Your task to perform on an android device: Go to Reddit.com Image 0: 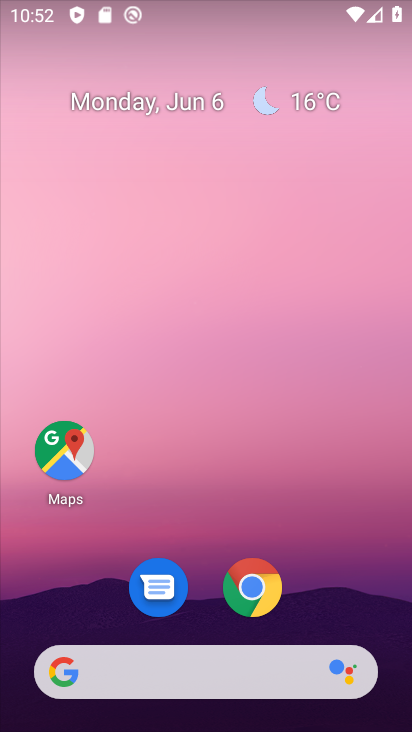
Step 0: drag from (318, 544) to (222, 40)
Your task to perform on an android device: Go to Reddit.com Image 1: 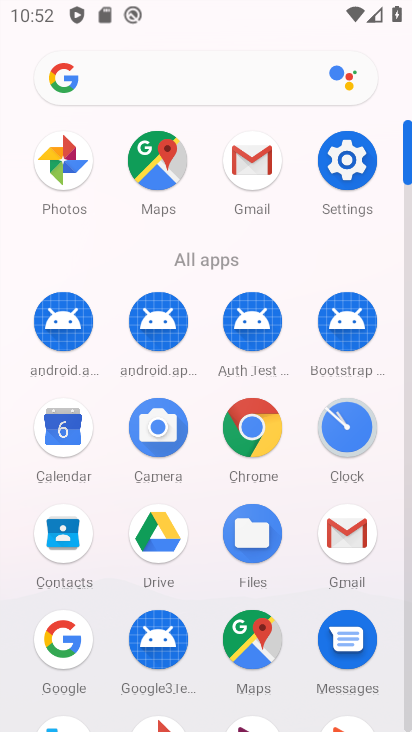
Step 1: drag from (18, 582) to (2, 225)
Your task to perform on an android device: Go to Reddit.com Image 2: 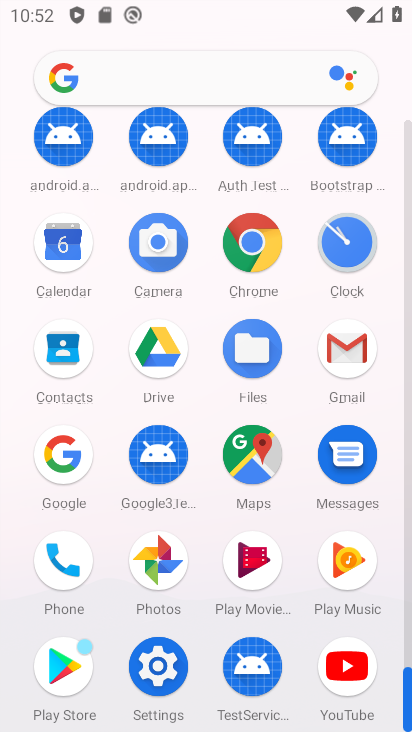
Step 2: click (251, 239)
Your task to perform on an android device: Go to Reddit.com Image 3: 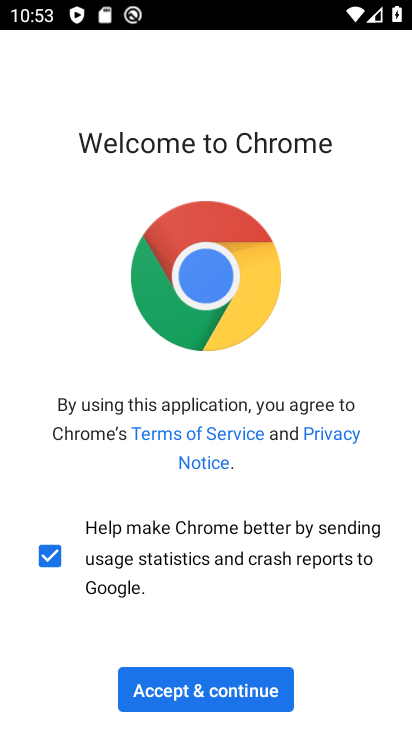
Step 3: click (225, 671)
Your task to perform on an android device: Go to Reddit.com Image 4: 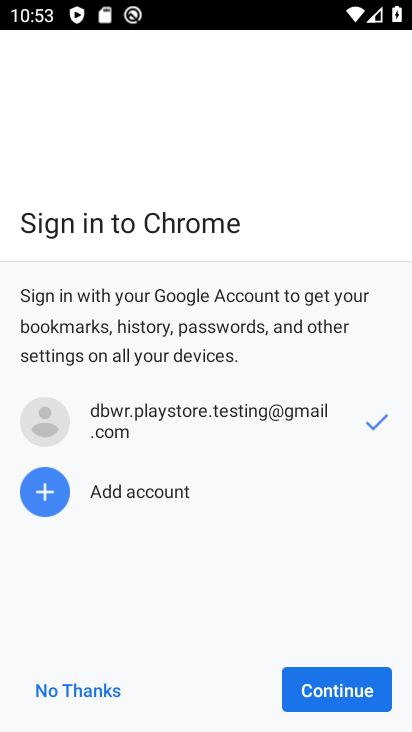
Step 4: click (339, 702)
Your task to perform on an android device: Go to Reddit.com Image 5: 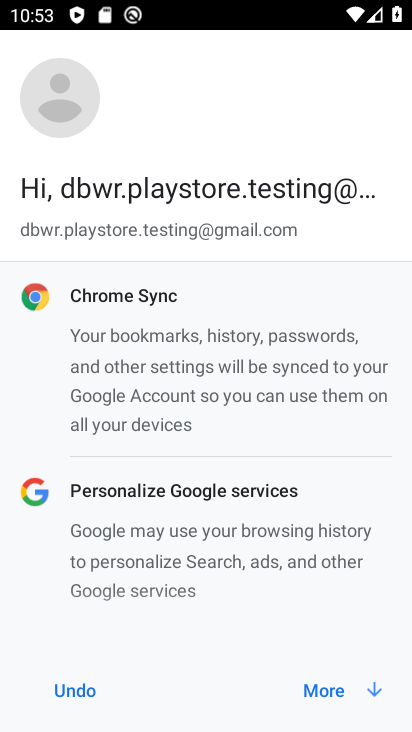
Step 5: click (329, 688)
Your task to perform on an android device: Go to Reddit.com Image 6: 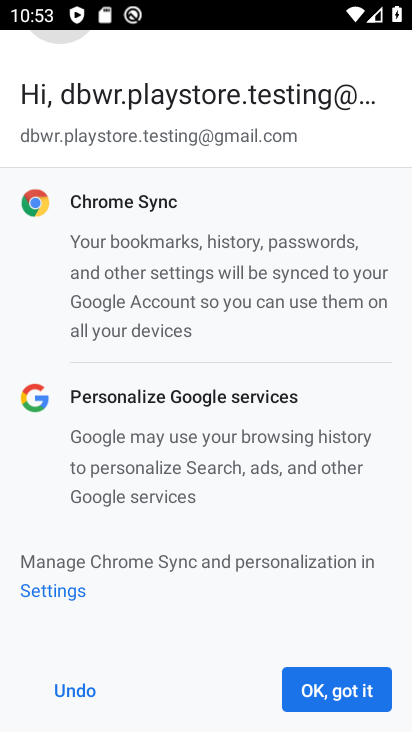
Step 6: click (329, 688)
Your task to perform on an android device: Go to Reddit.com Image 7: 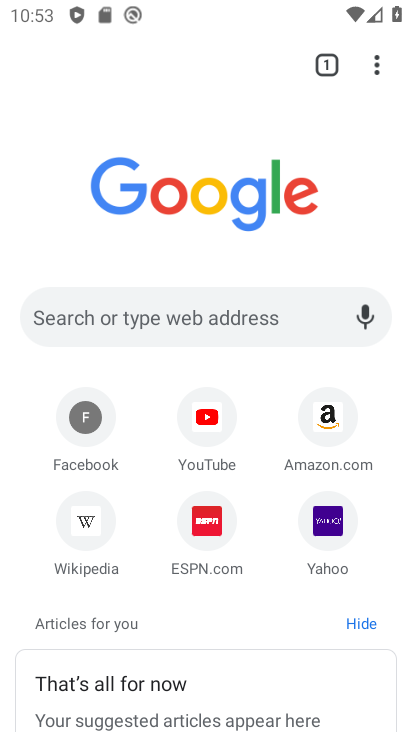
Step 7: click (141, 304)
Your task to perform on an android device: Go to Reddit.com Image 8: 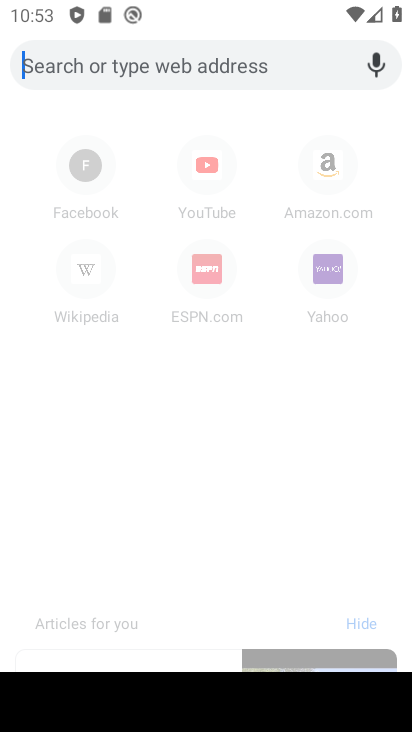
Step 8: type "Reddit.com"
Your task to perform on an android device: Go to Reddit.com Image 9: 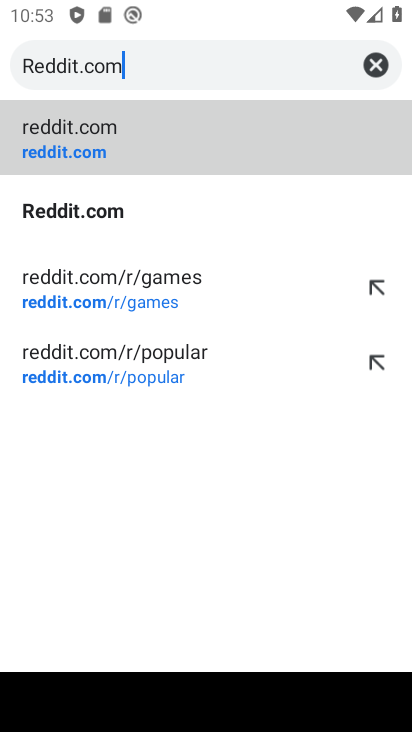
Step 9: type ""
Your task to perform on an android device: Go to Reddit.com Image 10: 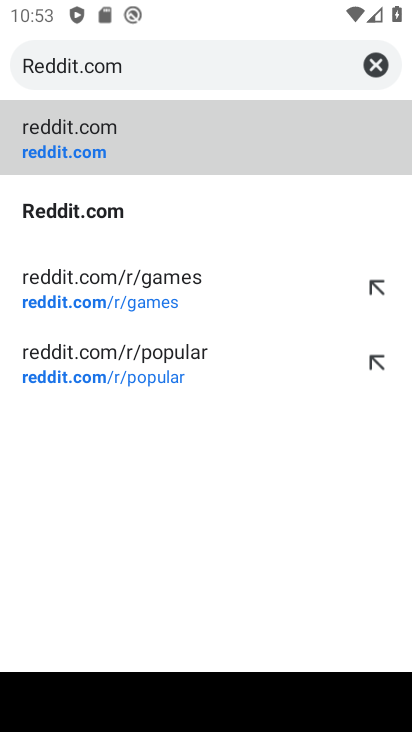
Step 10: click (93, 132)
Your task to perform on an android device: Go to Reddit.com Image 11: 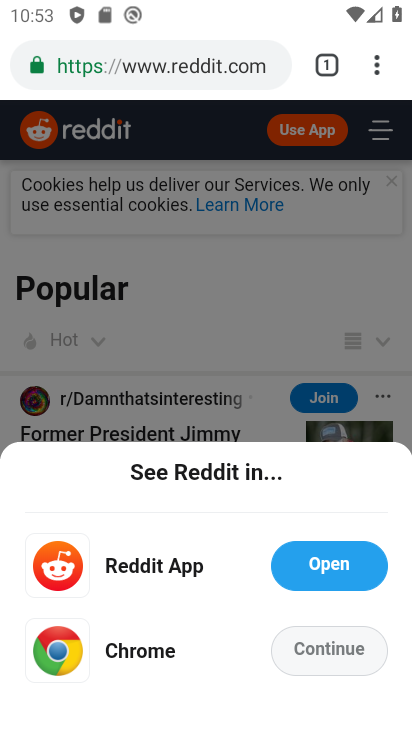
Step 11: task complete